Your task to perform on an android device: Add bose soundsport free to the cart on newegg, then select checkout. Image 0: 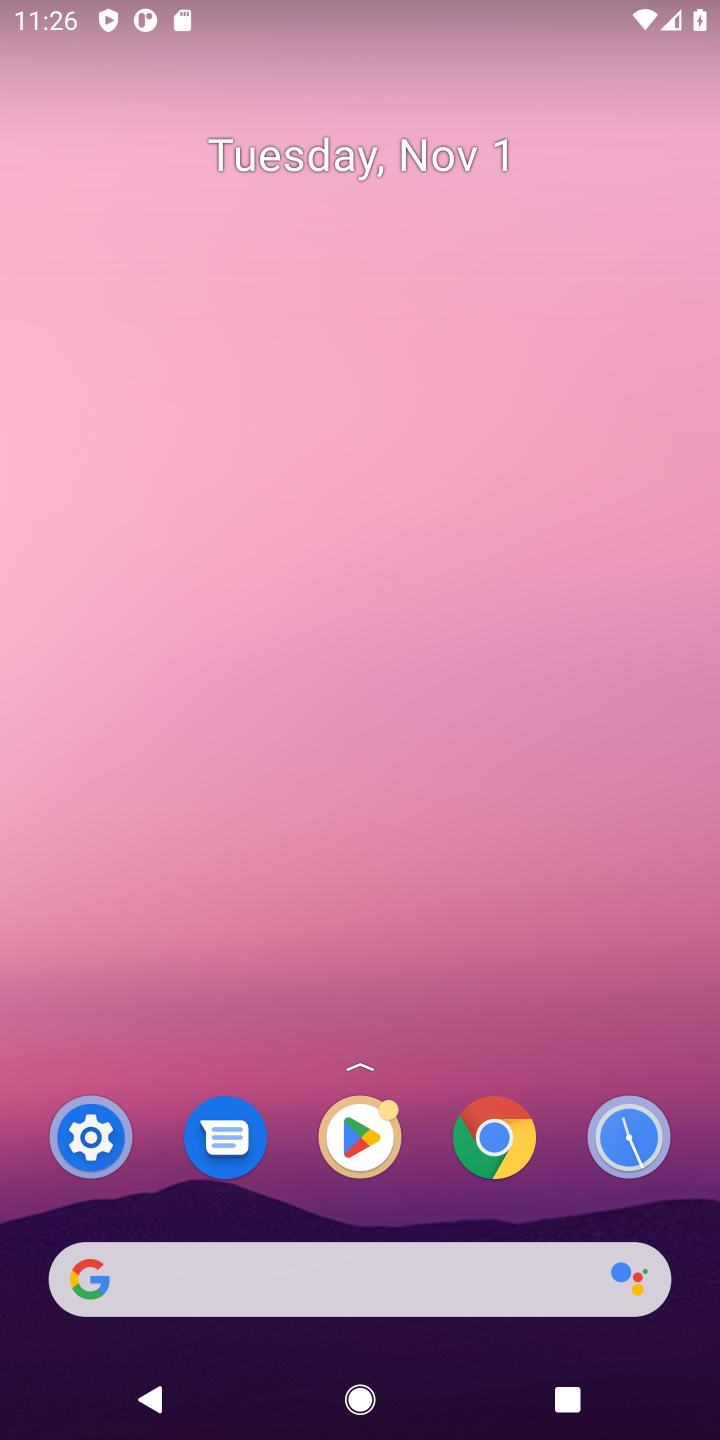
Step 0: click (244, 1246)
Your task to perform on an android device: Add bose soundsport free to the cart on newegg, then select checkout. Image 1: 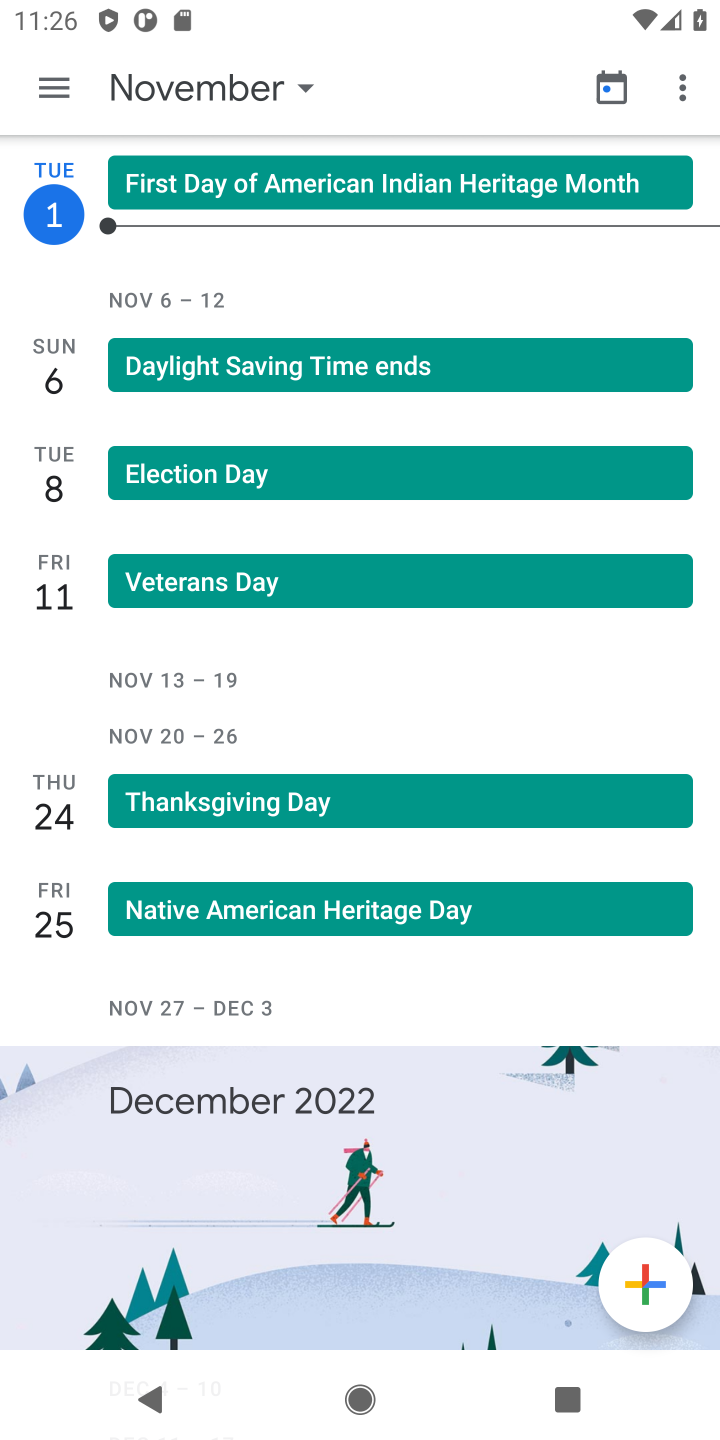
Step 1: type "newegg"
Your task to perform on an android device: Add bose soundsport free to the cart on newegg, then select checkout. Image 2: 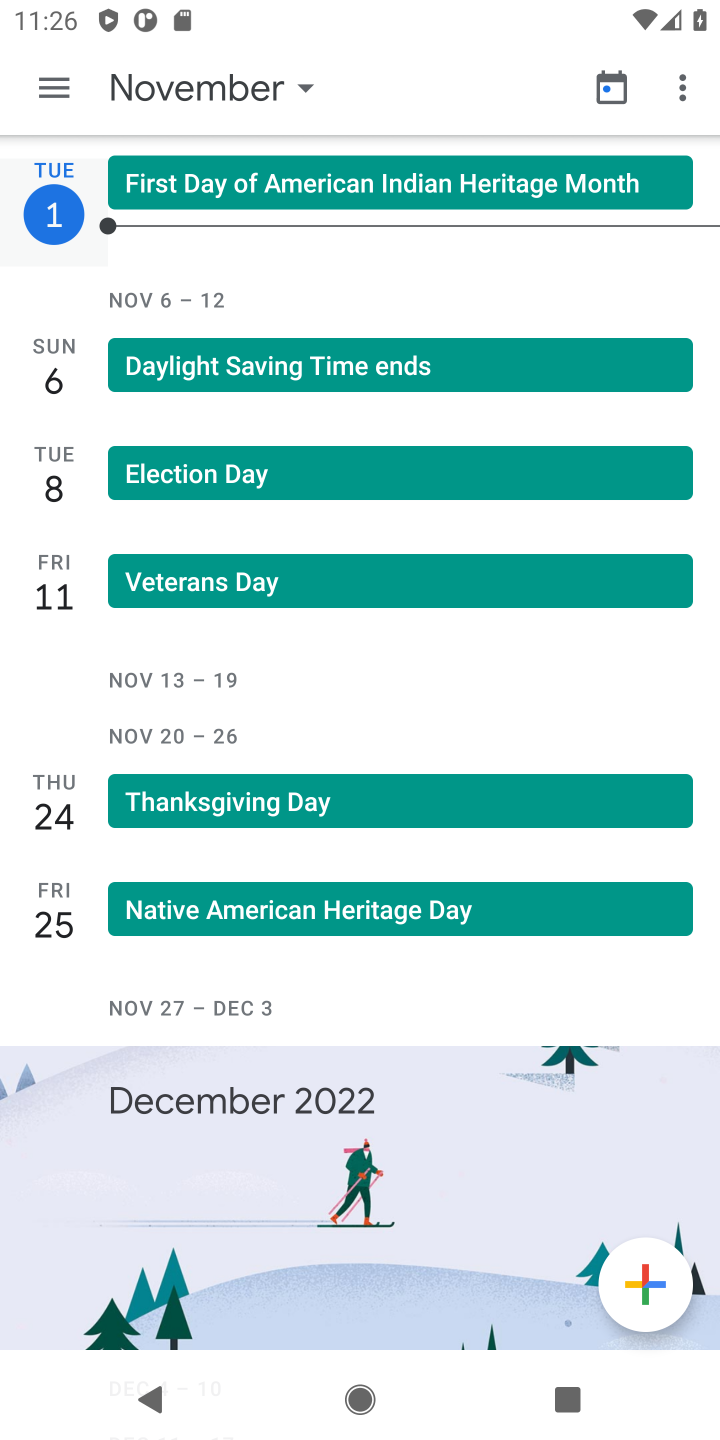
Step 2: type ""
Your task to perform on an android device: Add bose soundsport free to the cart on newegg, then select checkout. Image 3: 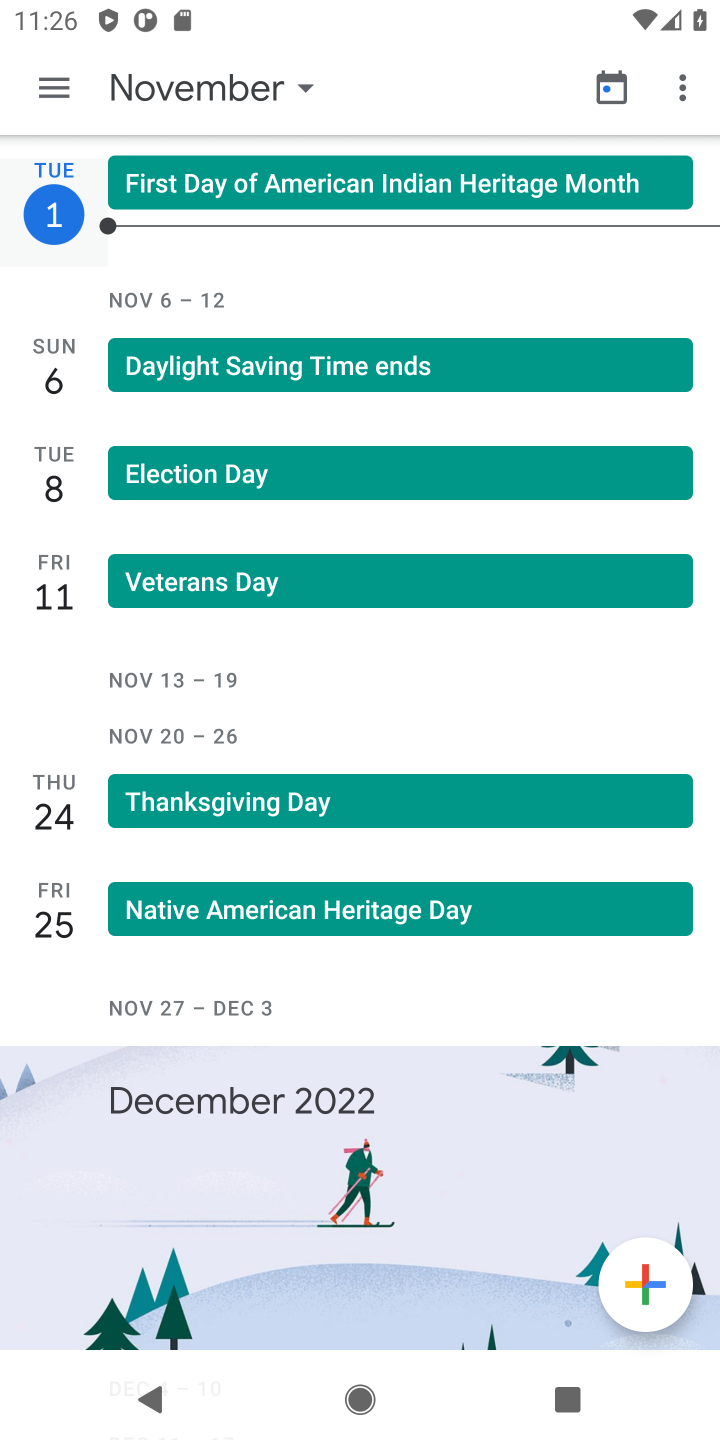
Step 3: press enter
Your task to perform on an android device: Add bose soundsport free to the cart on newegg, then select checkout. Image 4: 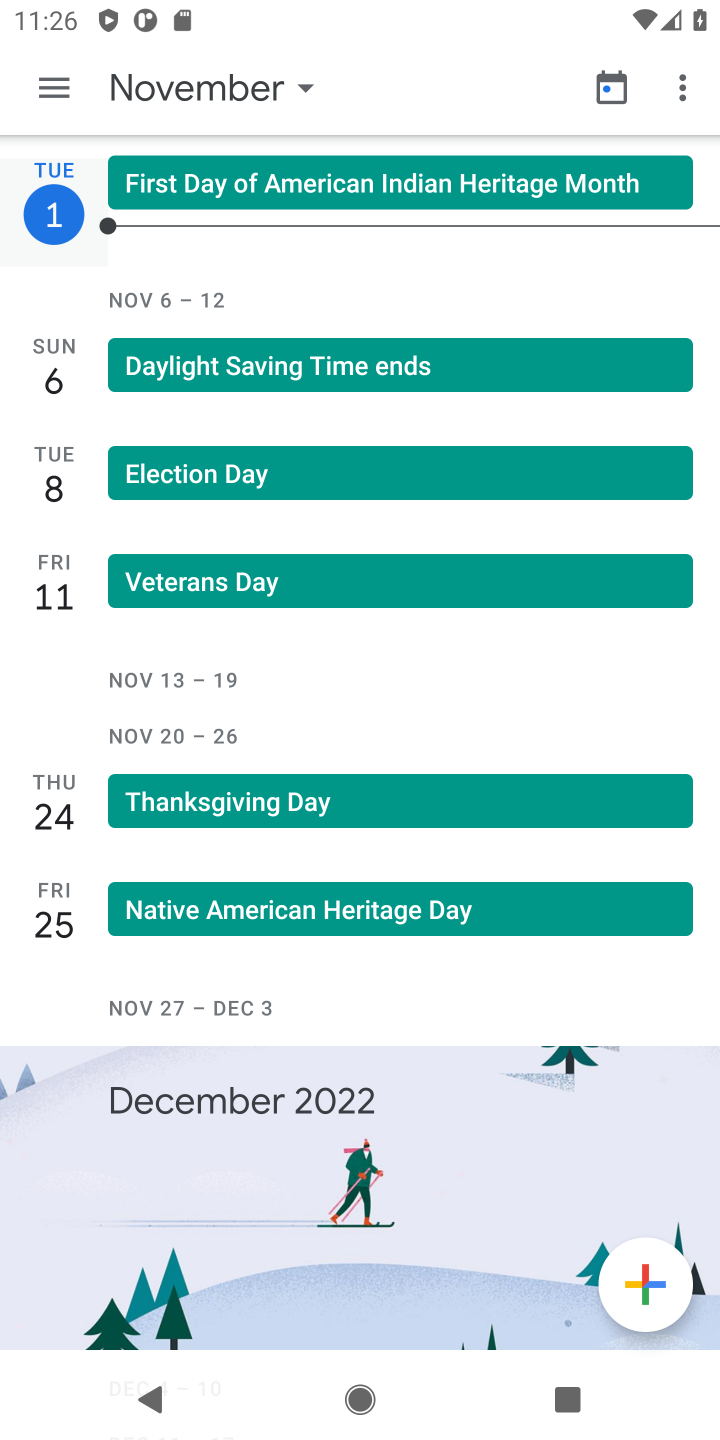
Step 4: press home button
Your task to perform on an android device: Add bose soundsport free to the cart on newegg, then select checkout. Image 5: 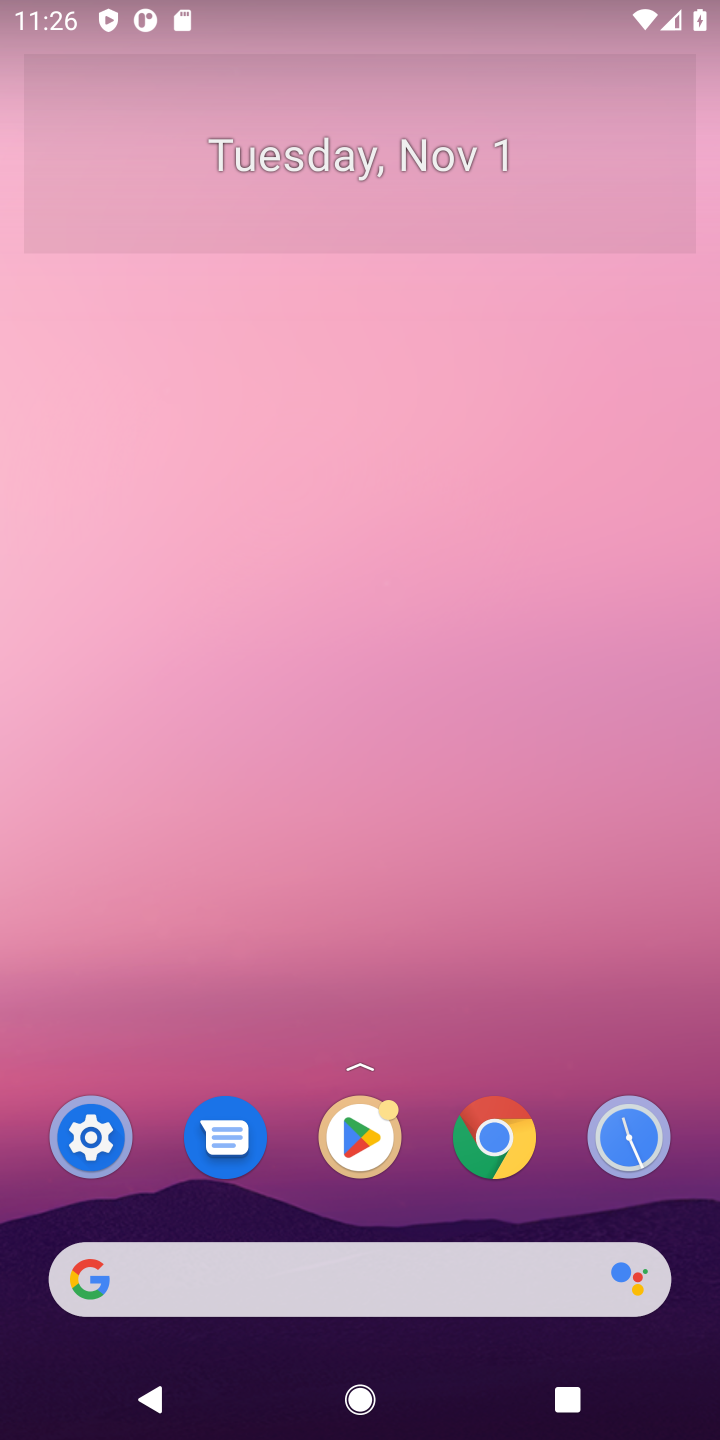
Step 5: click (304, 1257)
Your task to perform on an android device: Add bose soundsport free to the cart on newegg, then select checkout. Image 6: 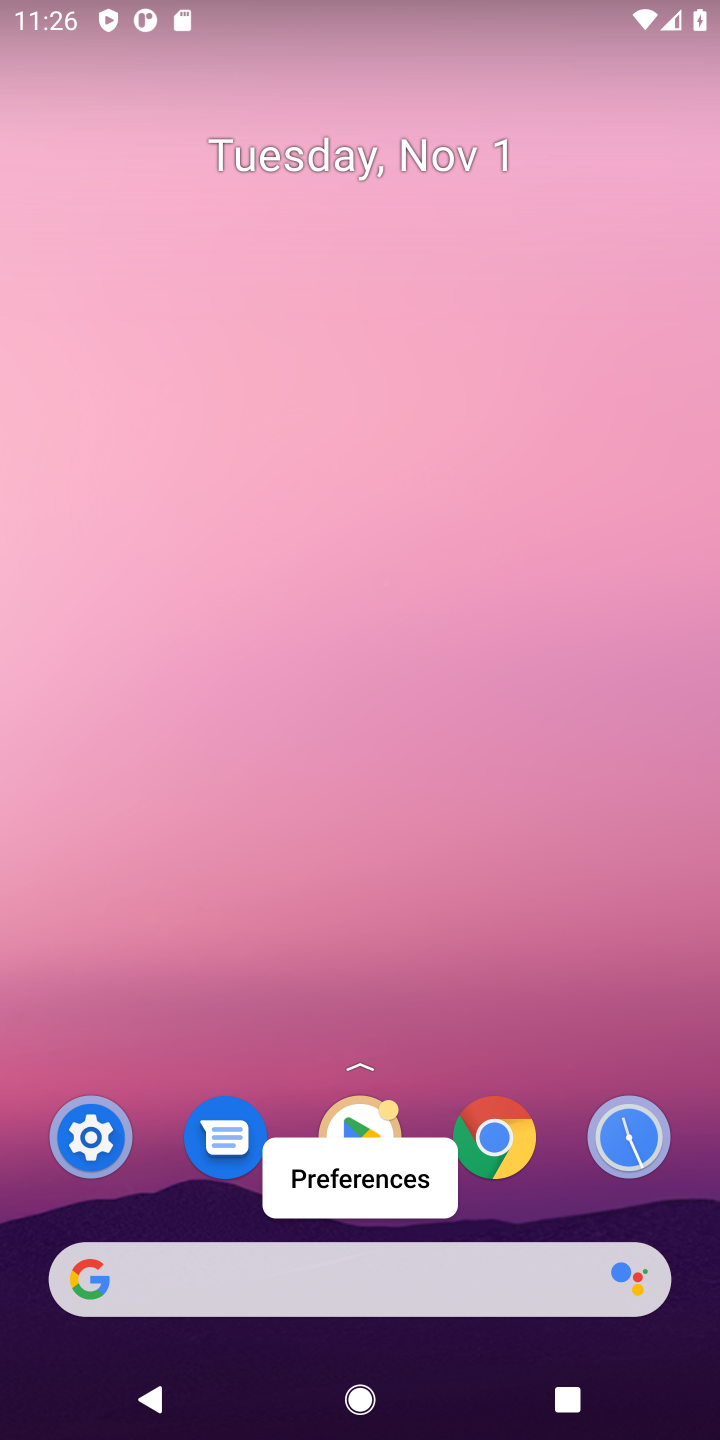
Step 6: click (315, 1272)
Your task to perform on an android device: Add bose soundsport free to the cart on newegg, then select checkout. Image 7: 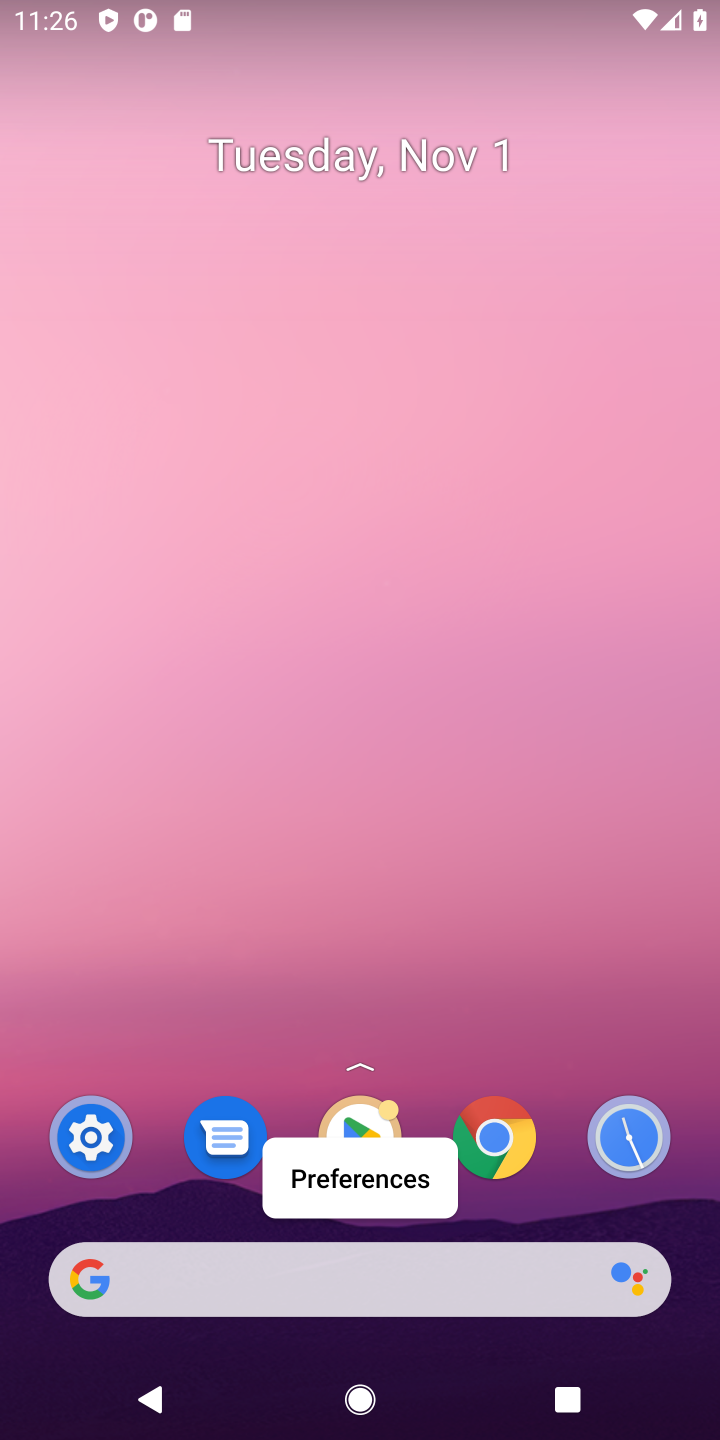
Step 7: click (315, 1272)
Your task to perform on an android device: Add bose soundsport free to the cart on newegg, then select checkout. Image 8: 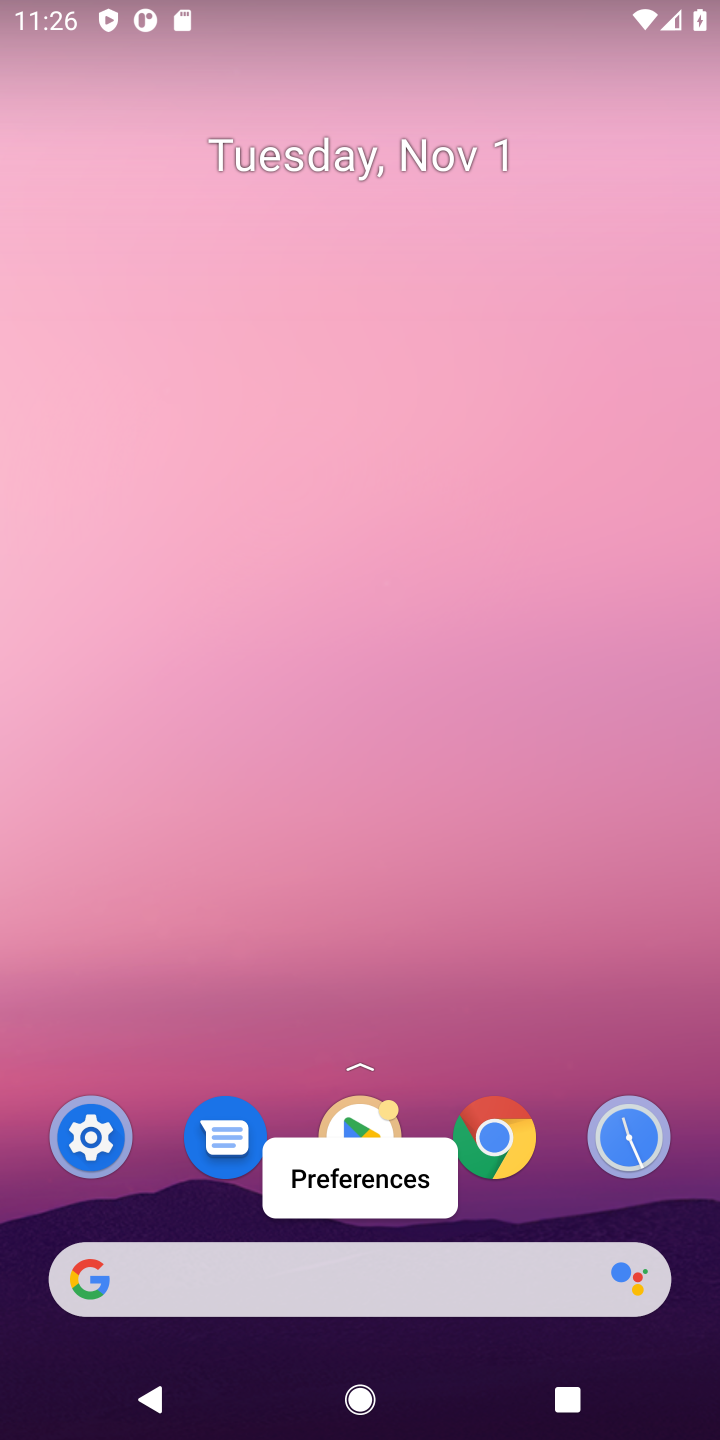
Step 8: click (315, 1272)
Your task to perform on an android device: Add bose soundsport free to the cart on newegg, then select checkout. Image 9: 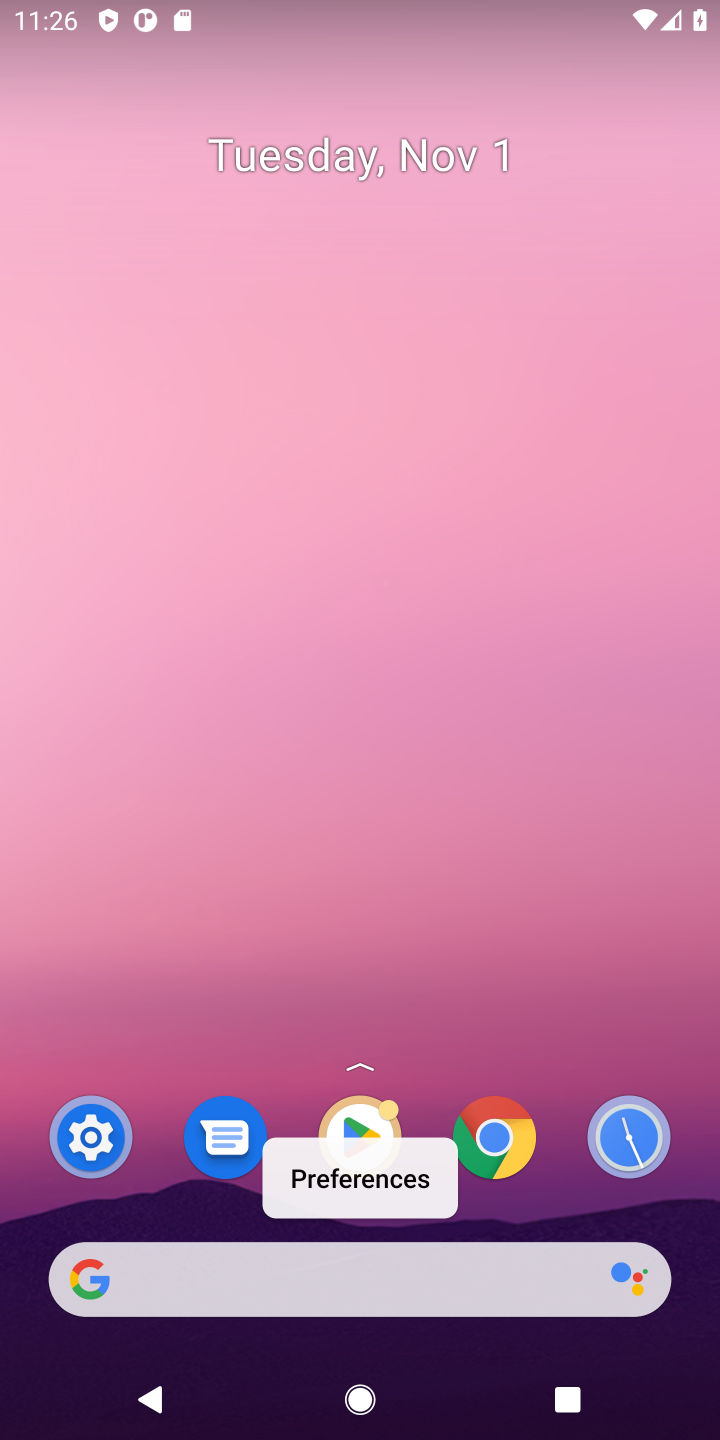
Step 9: click (315, 1272)
Your task to perform on an android device: Add bose soundsport free to the cart on newegg, then select checkout. Image 10: 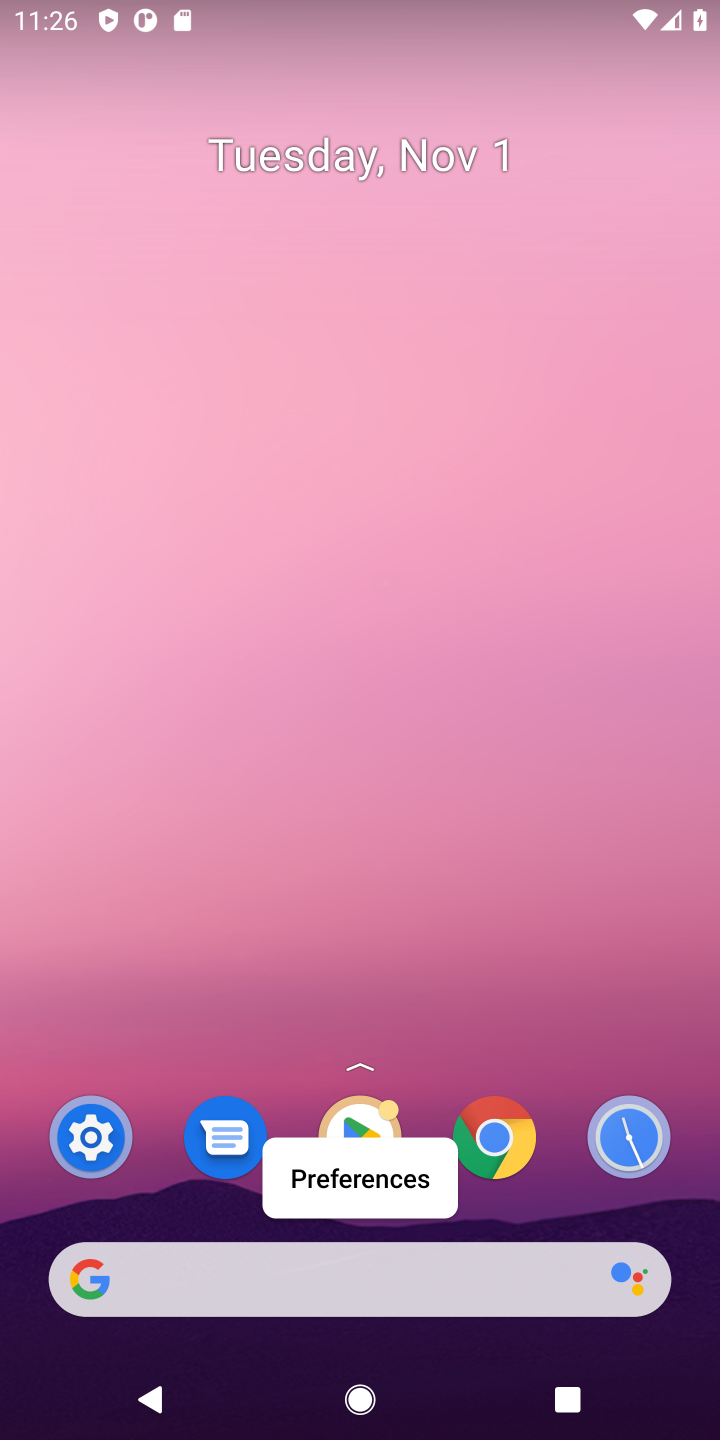
Step 10: click (276, 1272)
Your task to perform on an android device: Add bose soundsport free to the cart on newegg, then select checkout. Image 11: 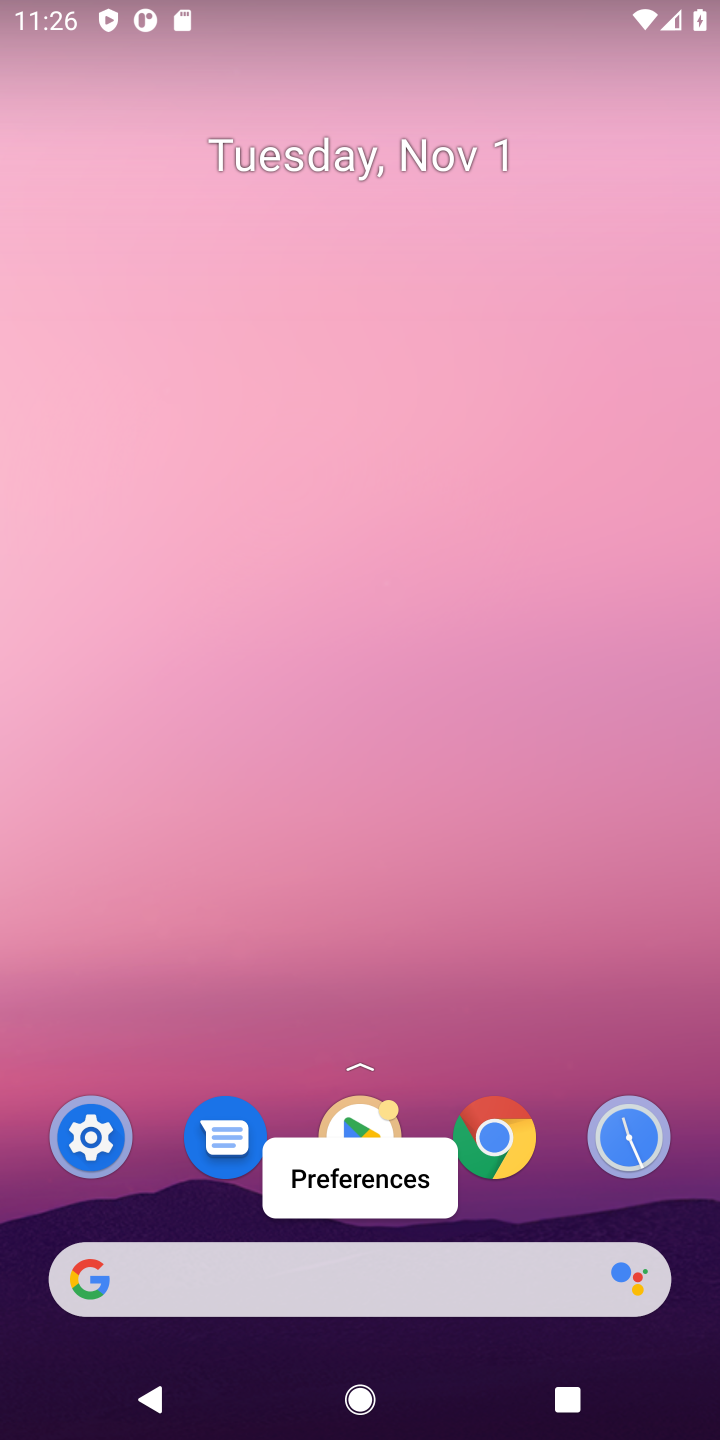
Step 11: click (276, 1272)
Your task to perform on an android device: Add bose soundsport free to the cart on newegg, then select checkout. Image 12: 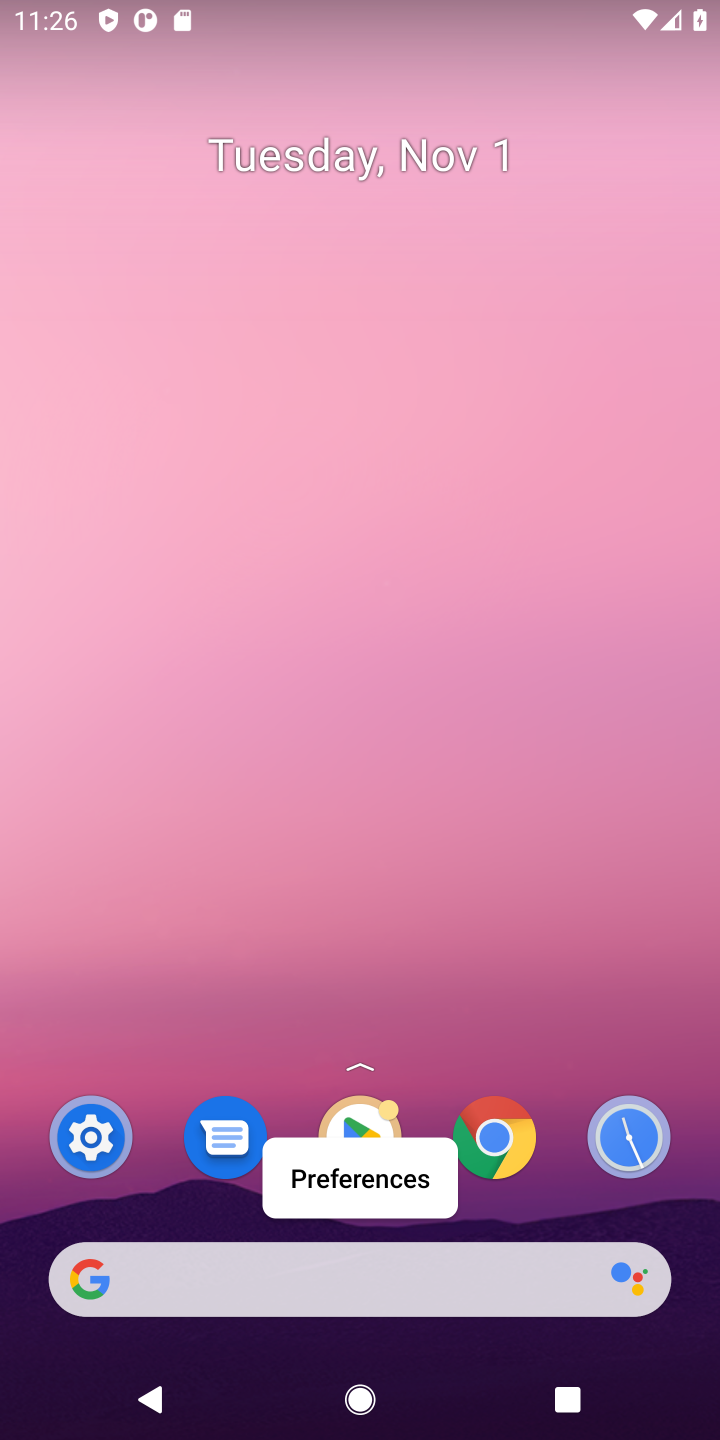
Step 12: click (276, 1272)
Your task to perform on an android device: Add bose soundsport free to the cart on newegg, then select checkout. Image 13: 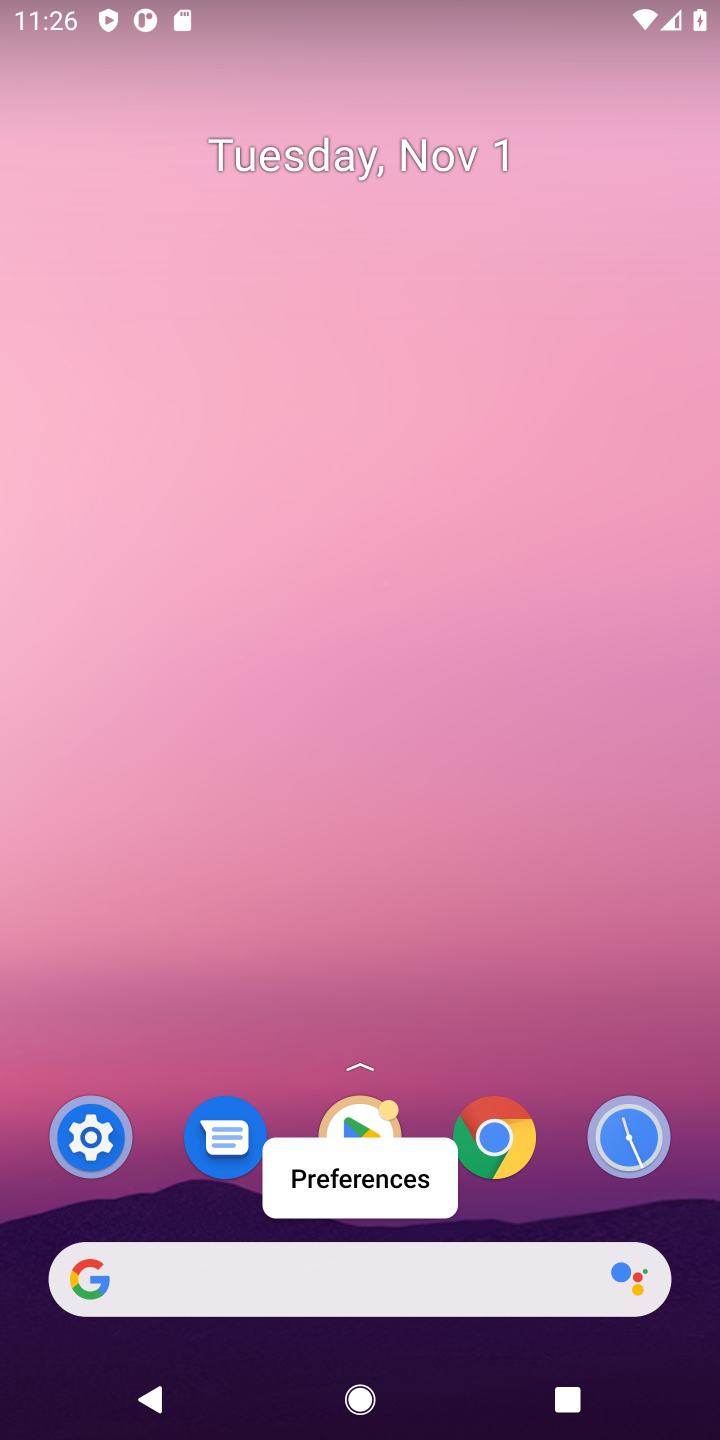
Step 13: click (276, 1272)
Your task to perform on an android device: Add bose soundsport free to the cart on newegg, then select checkout. Image 14: 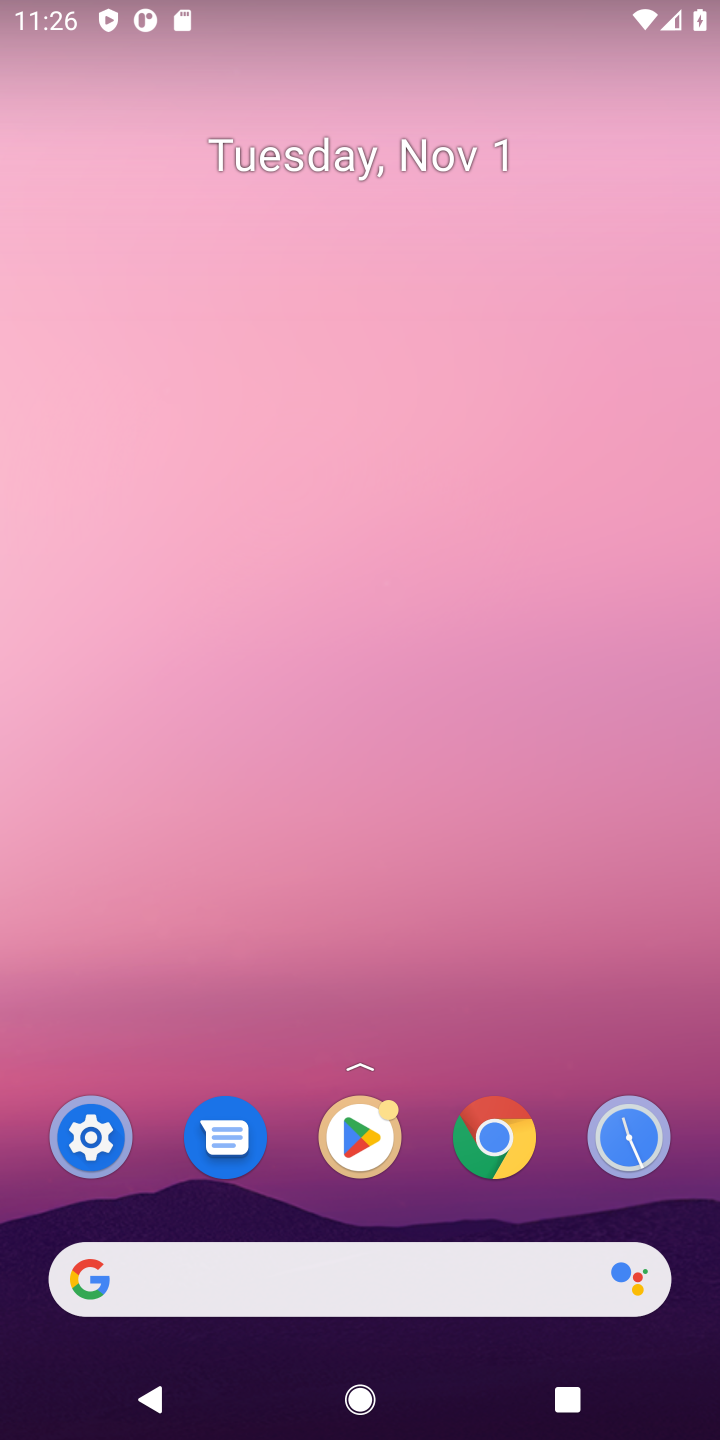
Step 14: click (432, 1275)
Your task to perform on an android device: Add bose soundsport free to the cart on newegg, then select checkout. Image 15: 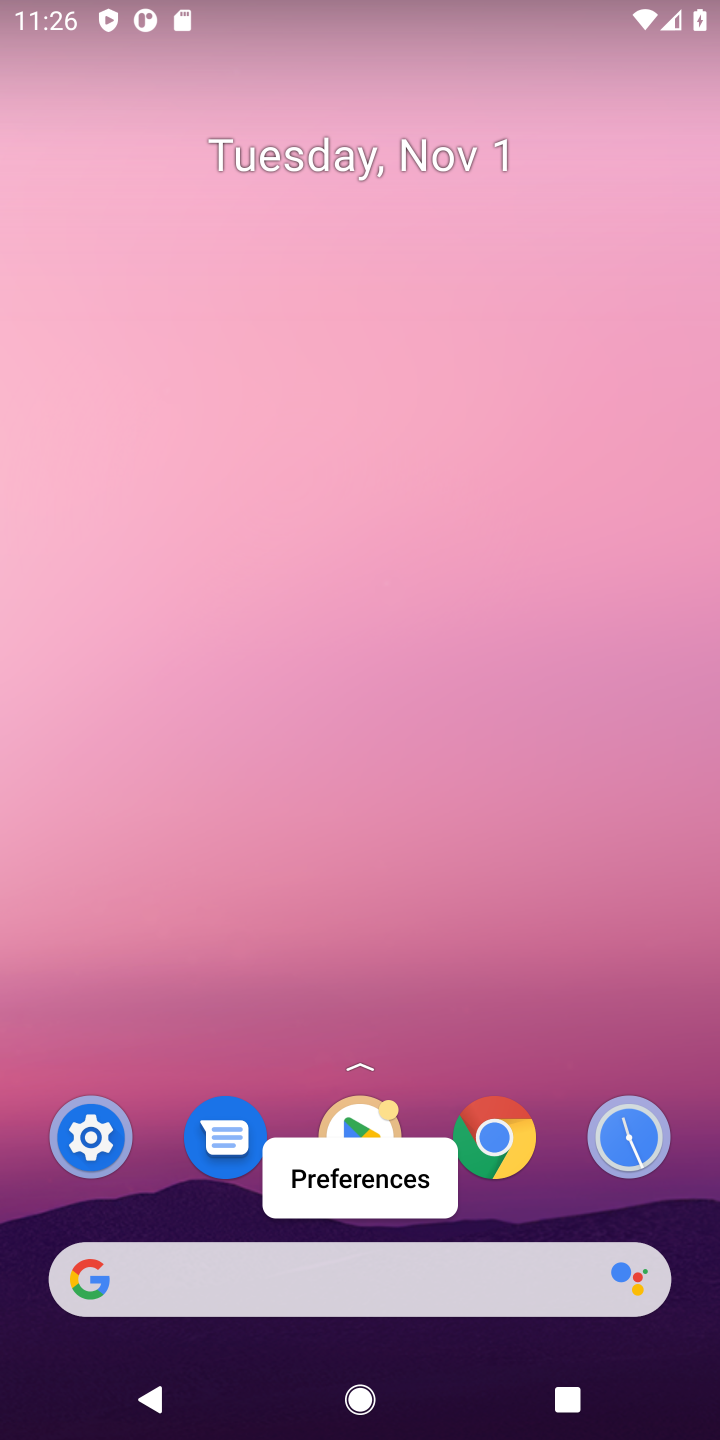
Step 15: click (171, 1293)
Your task to perform on an android device: Add bose soundsport free to the cart on newegg, then select checkout. Image 16: 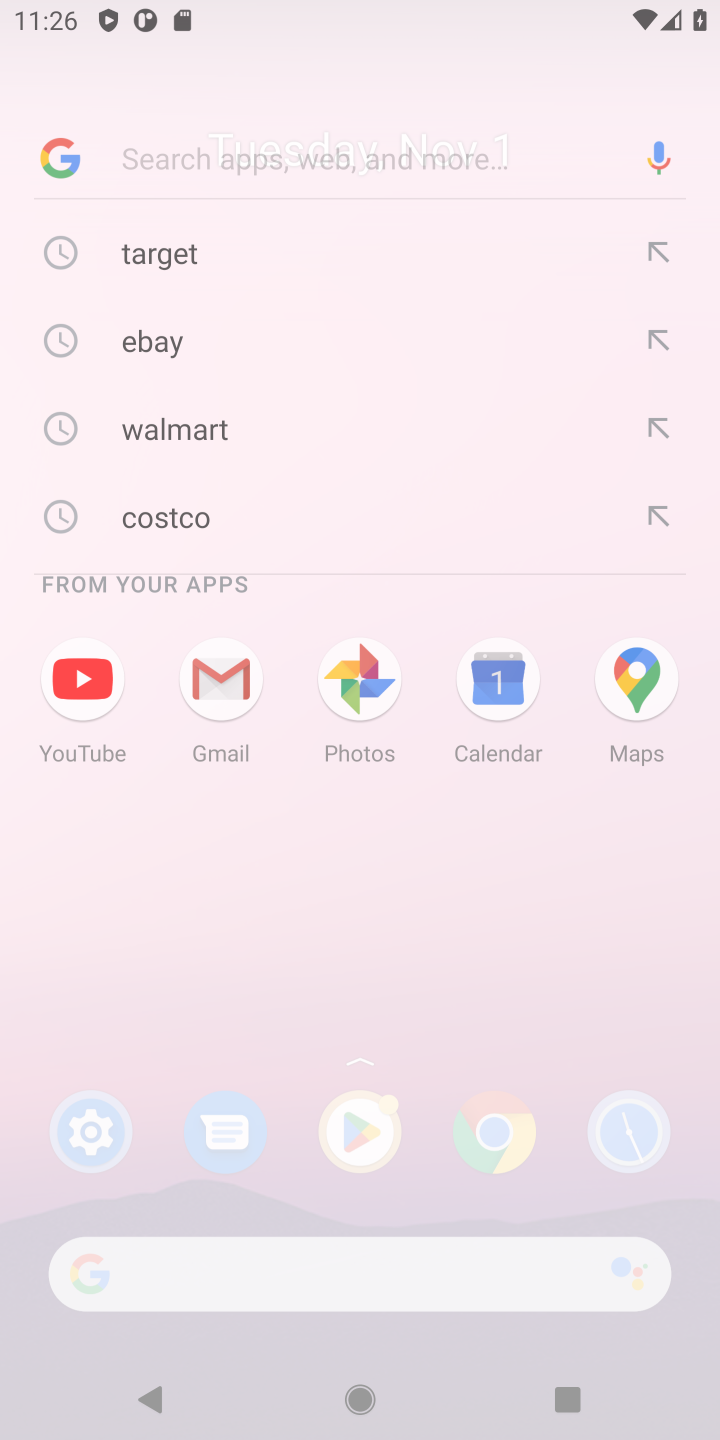
Step 16: click (496, 1122)
Your task to perform on an android device: Add bose soundsport free to the cart on newegg, then select checkout. Image 17: 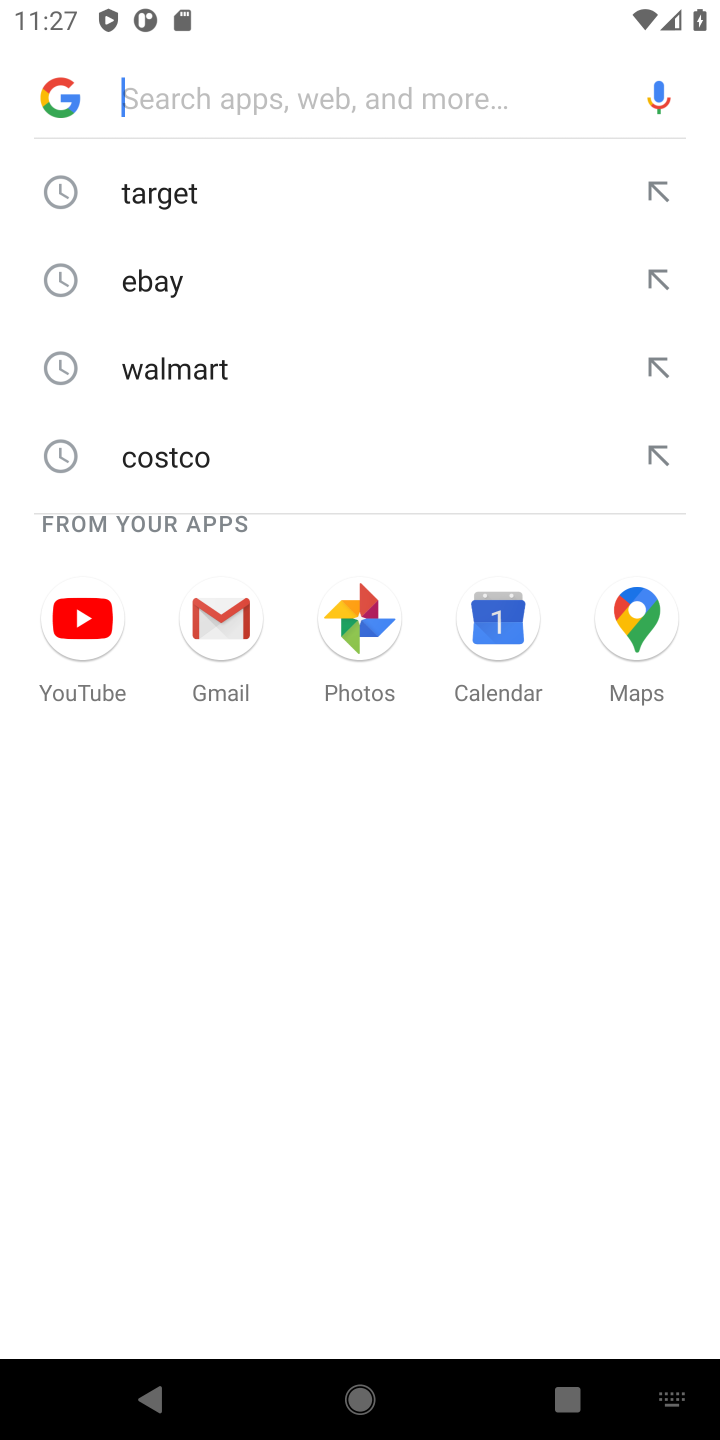
Step 17: type "newegg"
Your task to perform on an android device: Add bose soundsport free to the cart on newegg, then select checkout. Image 18: 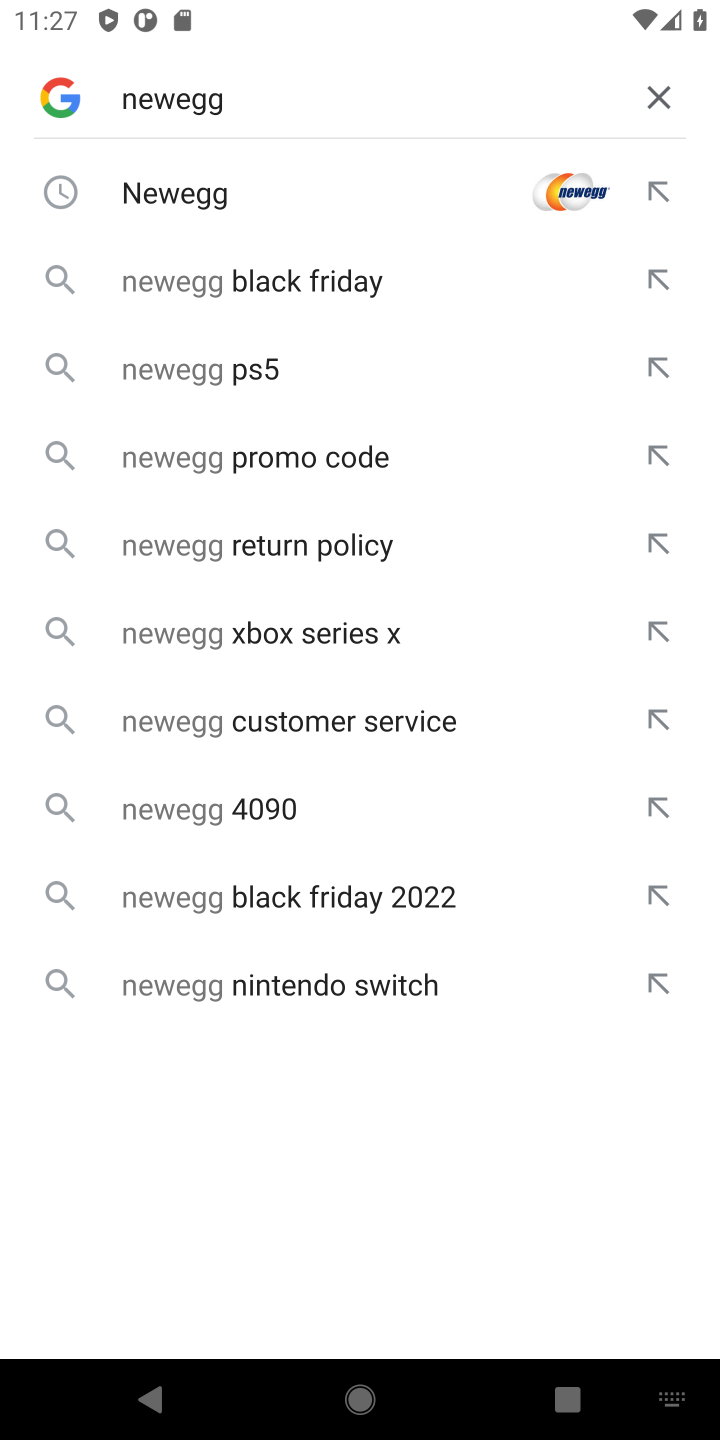
Step 18: press enter
Your task to perform on an android device: Add bose soundsport free to the cart on newegg, then select checkout. Image 19: 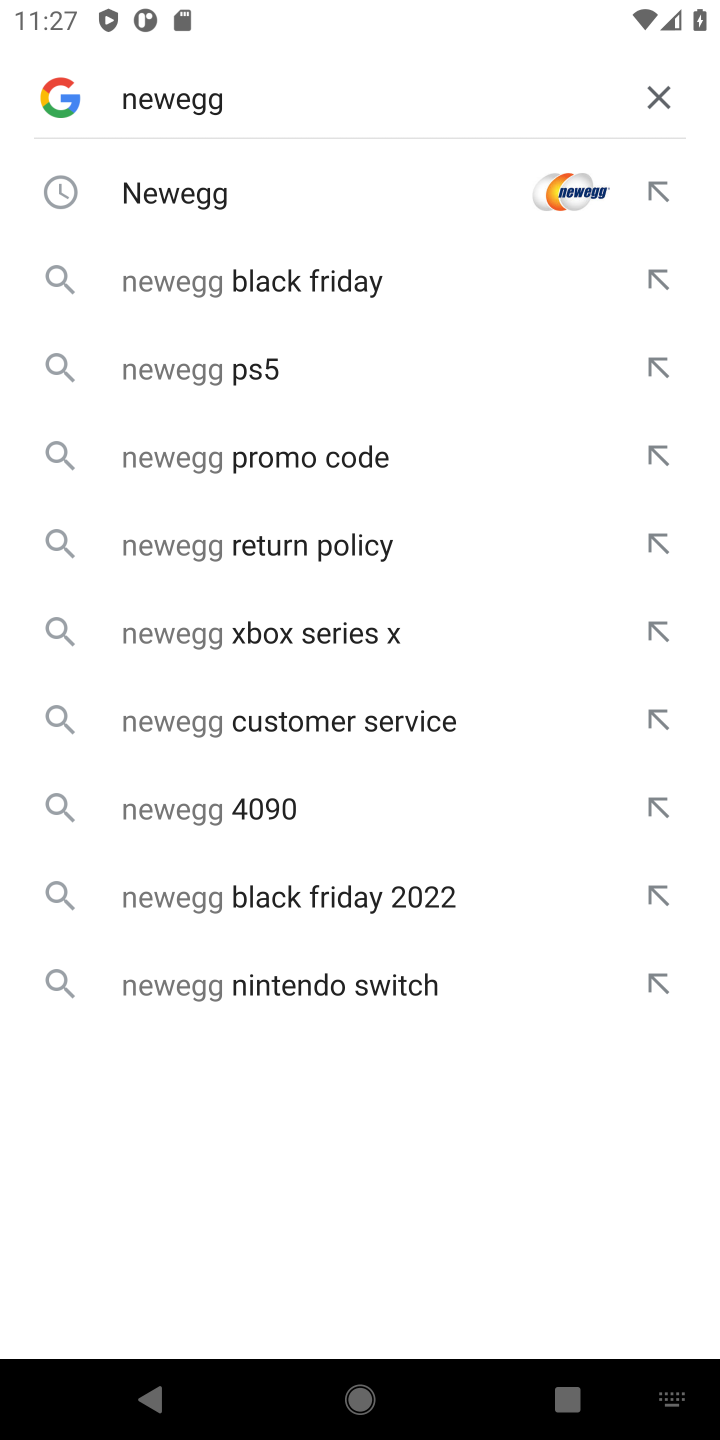
Step 19: type ""
Your task to perform on an android device: Add bose soundsport free to the cart on newegg, then select checkout. Image 20: 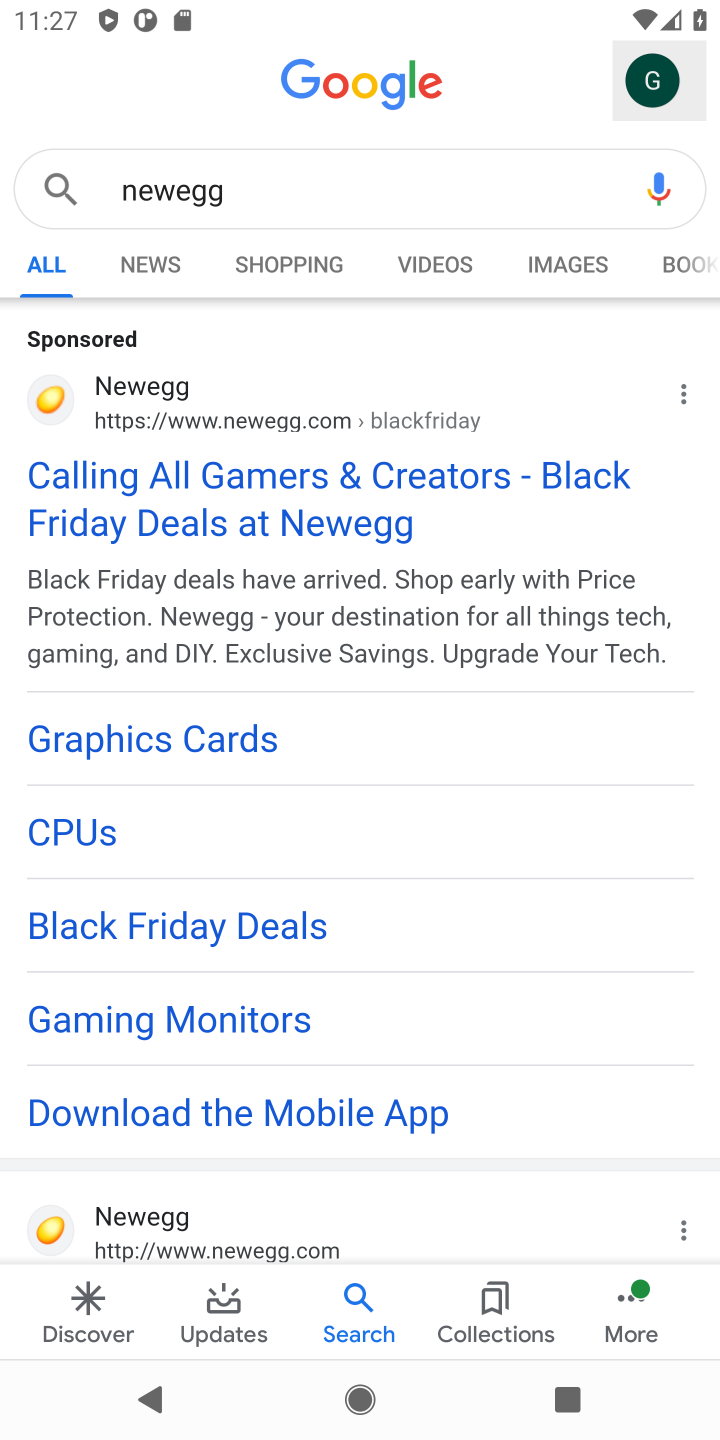
Step 20: click (153, 485)
Your task to perform on an android device: Add bose soundsport free to the cart on newegg, then select checkout. Image 21: 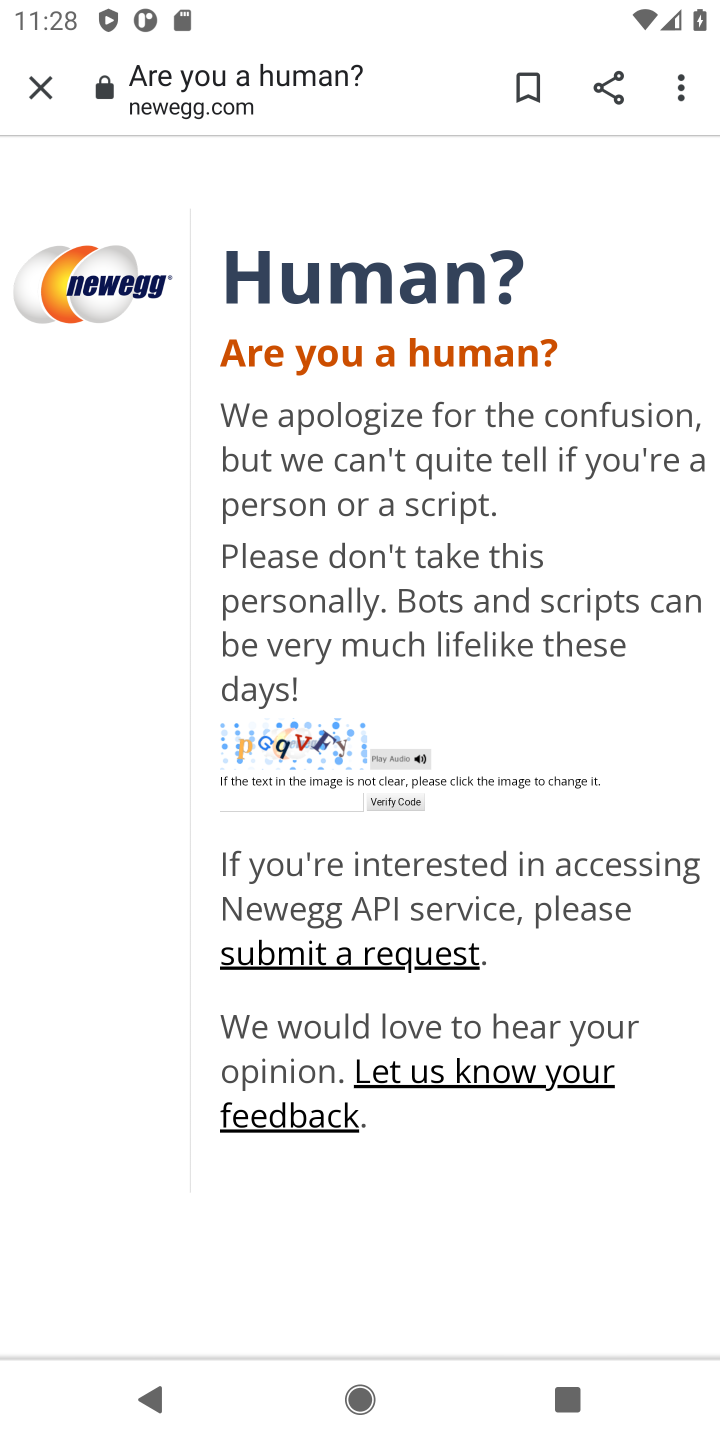
Step 21: click (293, 804)
Your task to perform on an android device: Add bose soundsport free to the cart on newegg, then select checkout. Image 22: 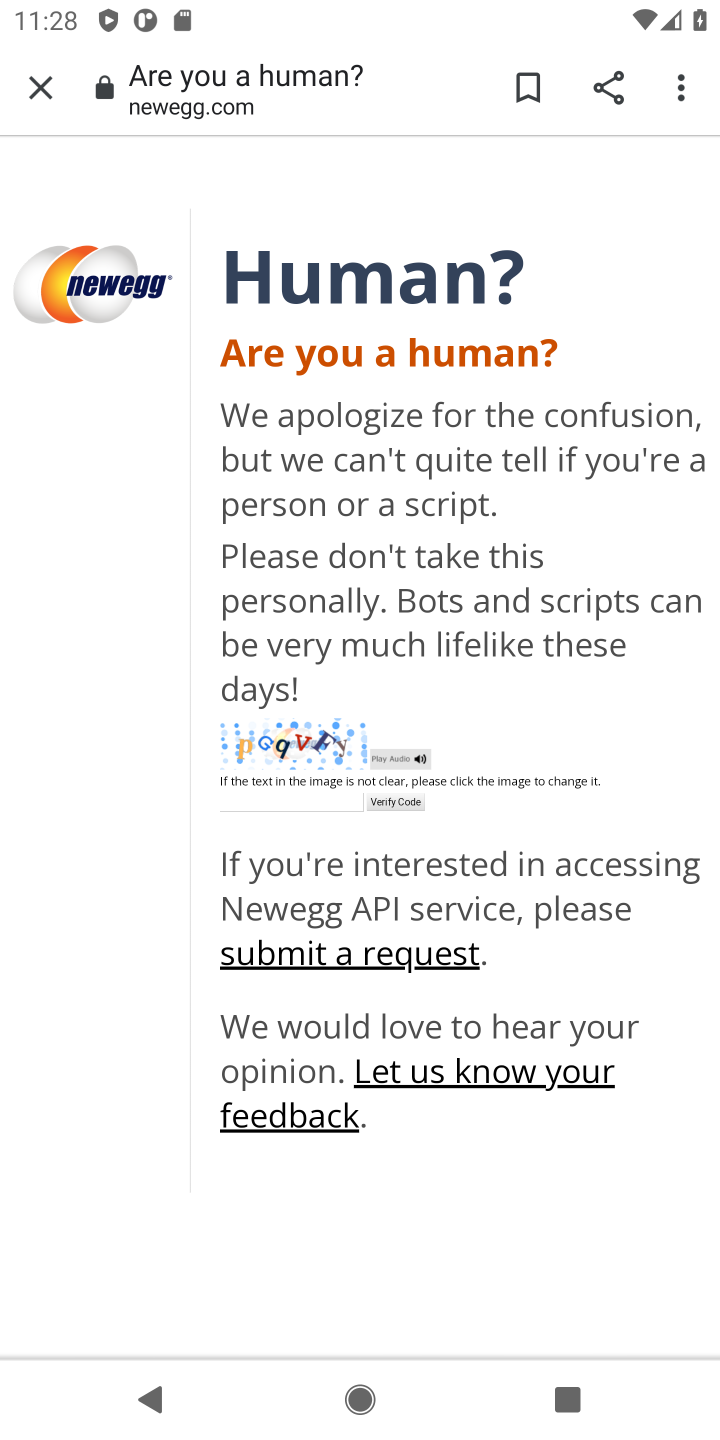
Step 22: click (296, 800)
Your task to perform on an android device: Add bose soundsport free to the cart on newegg, then select checkout. Image 23: 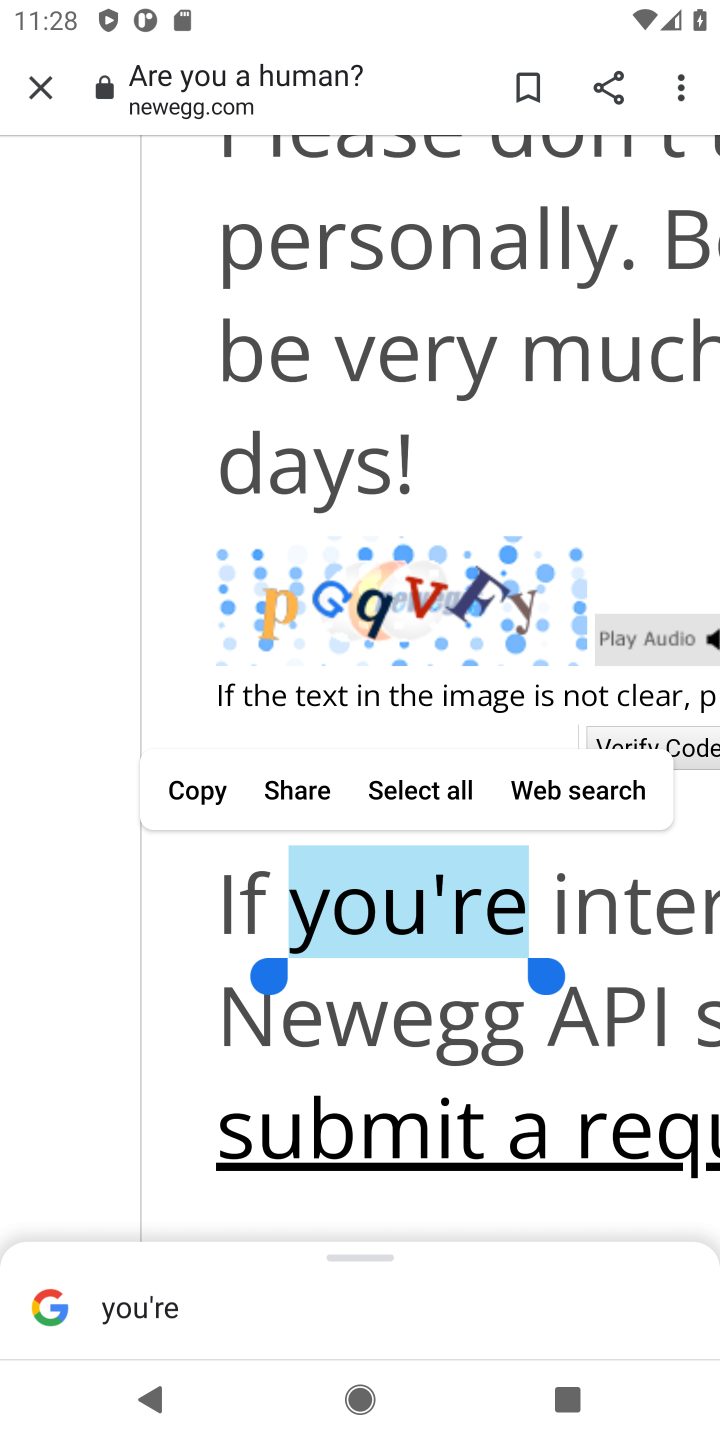
Step 23: click (85, 957)
Your task to perform on an android device: Add bose soundsport free to the cart on newegg, then select checkout. Image 24: 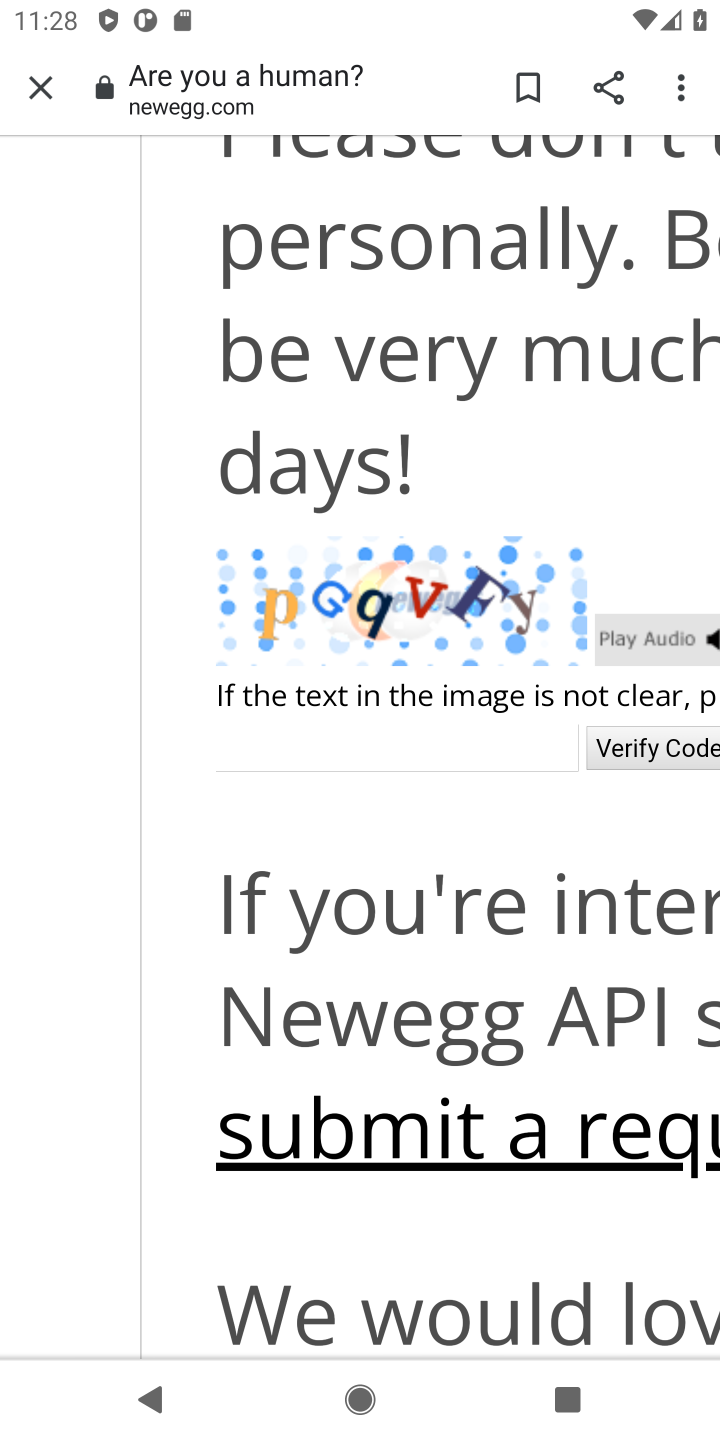
Step 24: click (331, 759)
Your task to perform on an android device: Add bose soundsport free to the cart on newegg, then select checkout. Image 25: 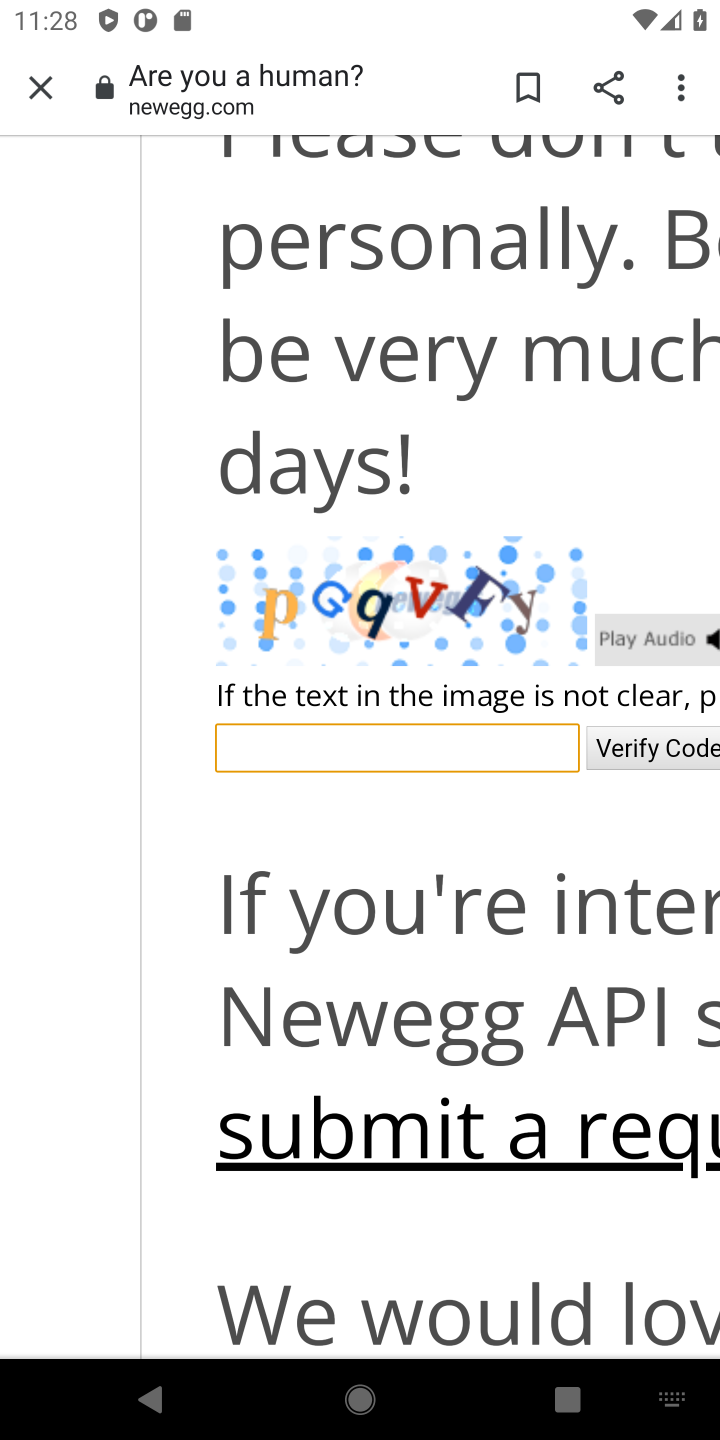
Step 25: type "pGqVFy"
Your task to perform on an android device: Add bose soundsport free to the cart on newegg, then select checkout. Image 26: 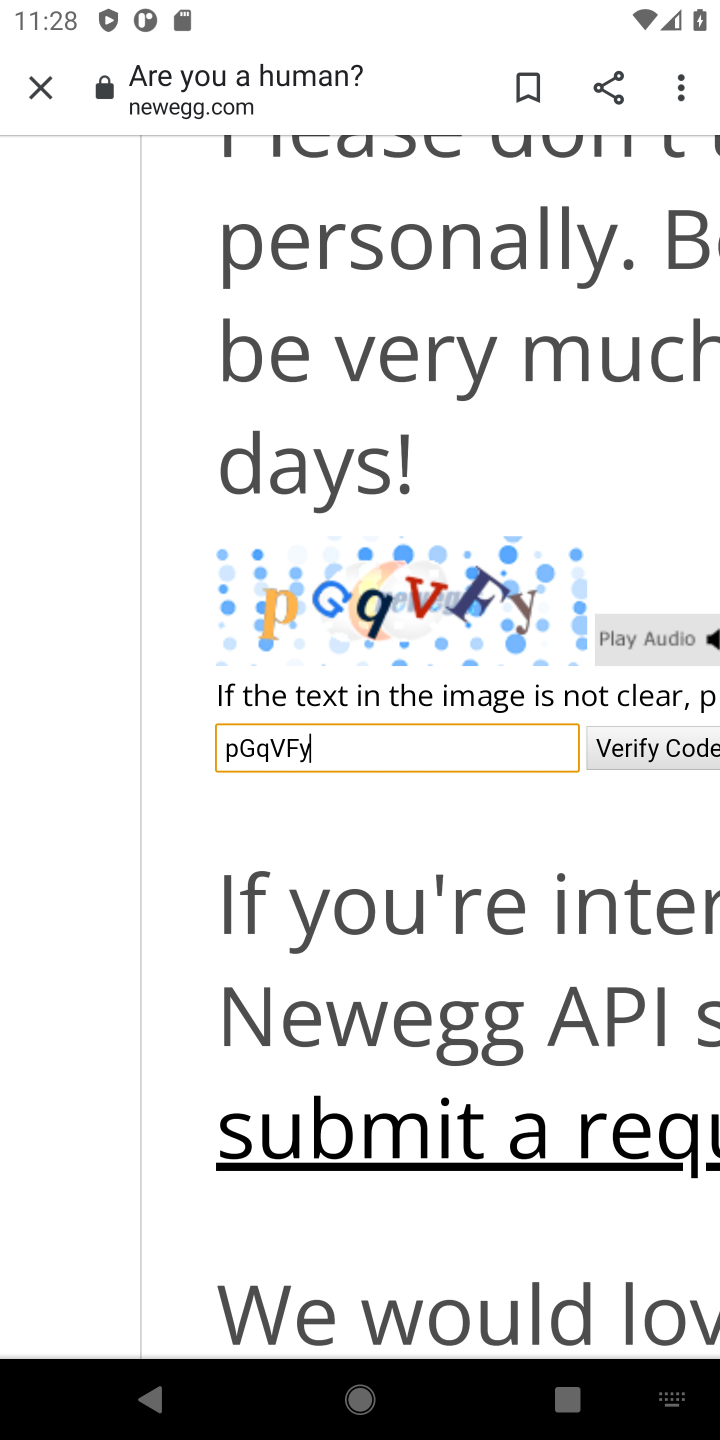
Step 26: type ""
Your task to perform on an android device: Add bose soundsport free to the cart on newegg, then select checkout. Image 27: 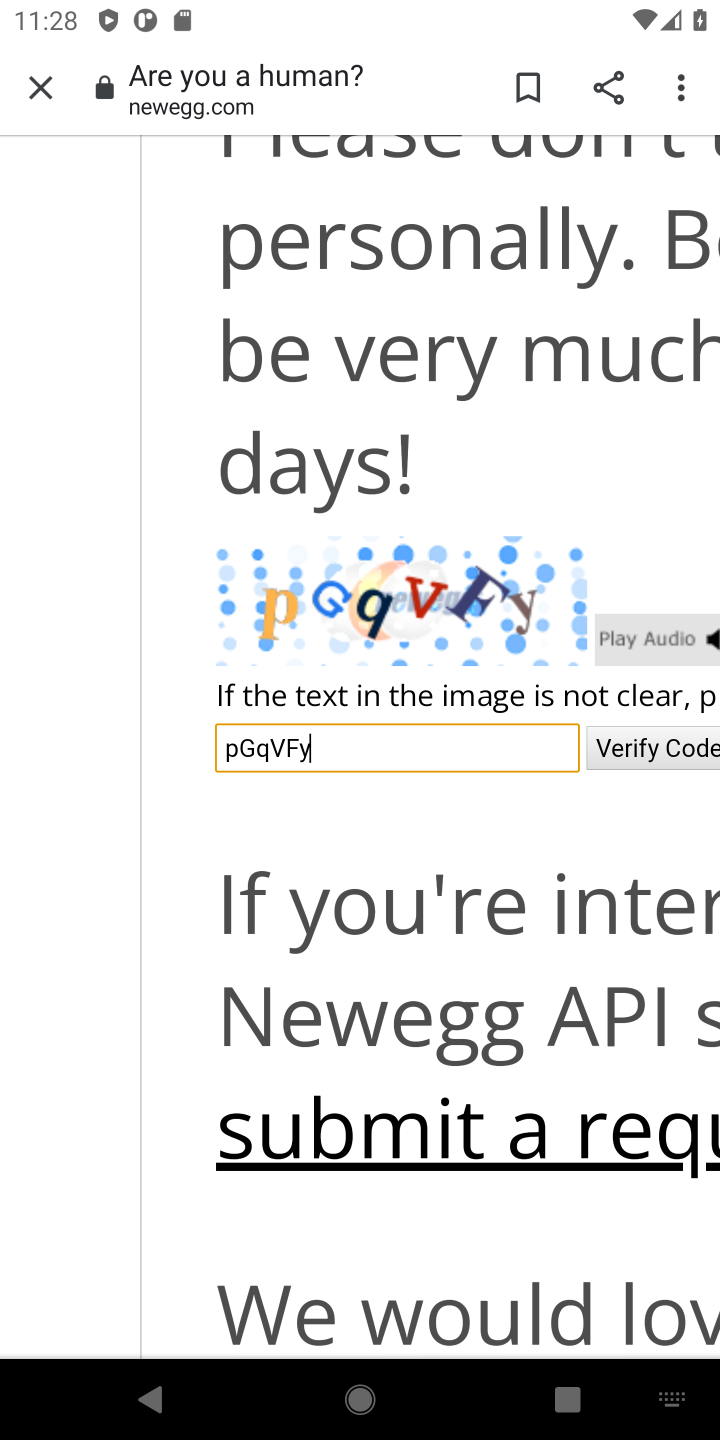
Step 27: click (713, 752)
Your task to perform on an android device: Add bose soundsport free to the cart on newegg, then select checkout. Image 28: 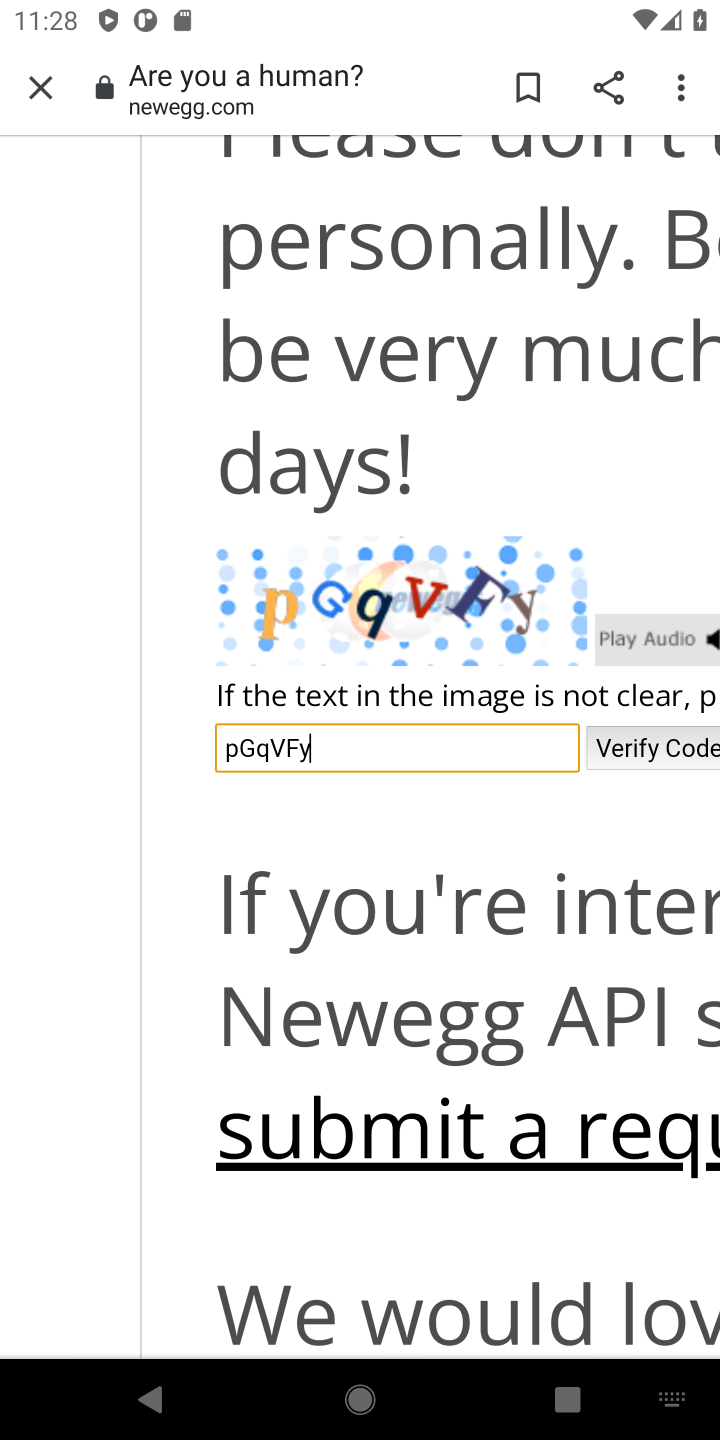
Step 28: click (703, 752)
Your task to perform on an android device: Add bose soundsport free to the cart on newegg, then select checkout. Image 29: 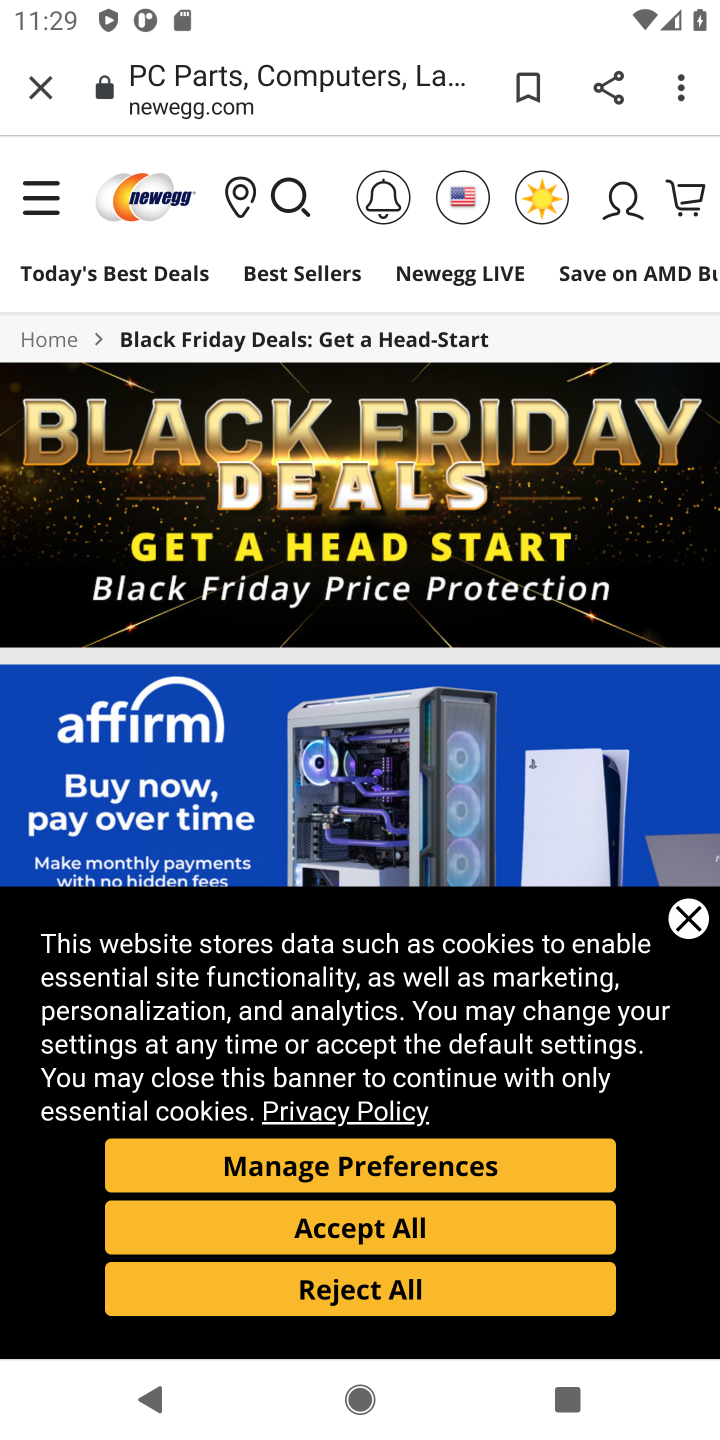
Step 29: click (390, 1221)
Your task to perform on an android device: Add bose soundsport free to the cart on newegg, then select checkout. Image 30: 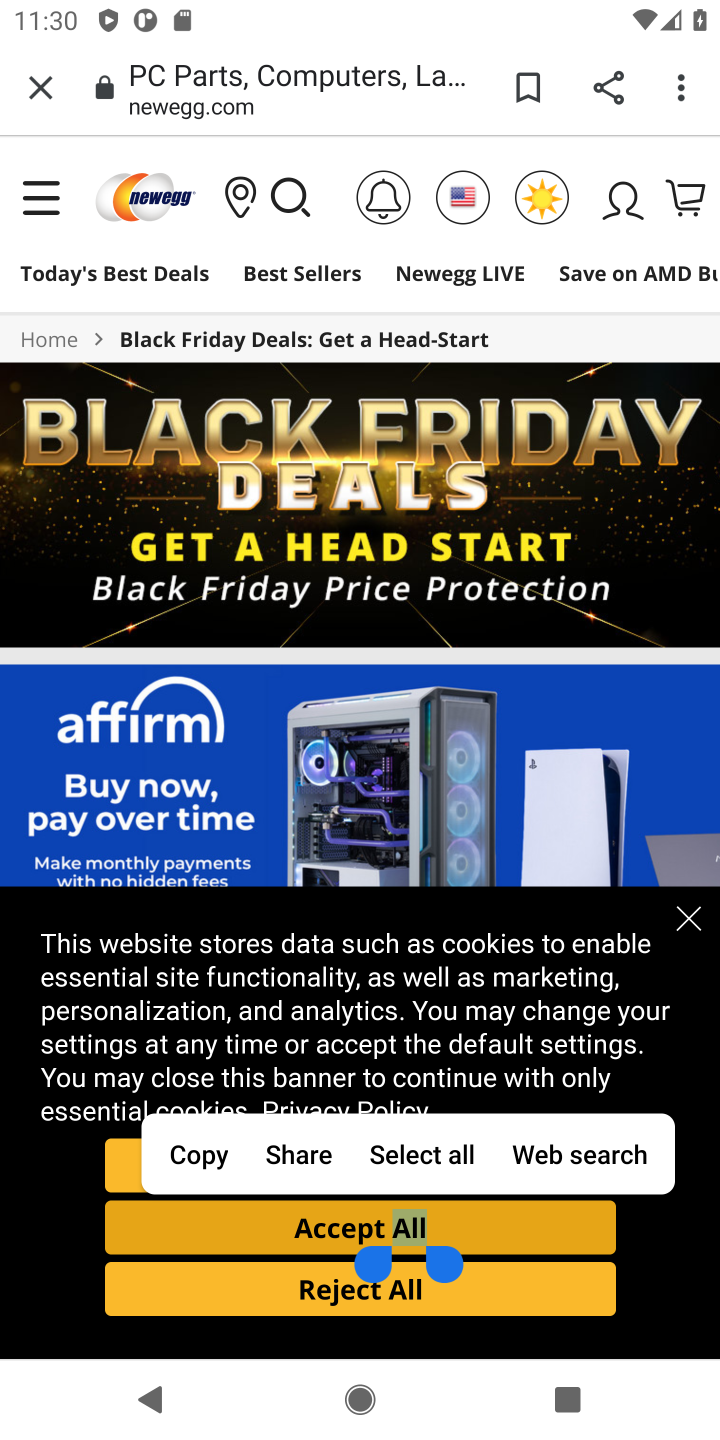
Step 30: click (376, 1226)
Your task to perform on an android device: Add bose soundsport free to the cart on newegg, then select checkout. Image 31: 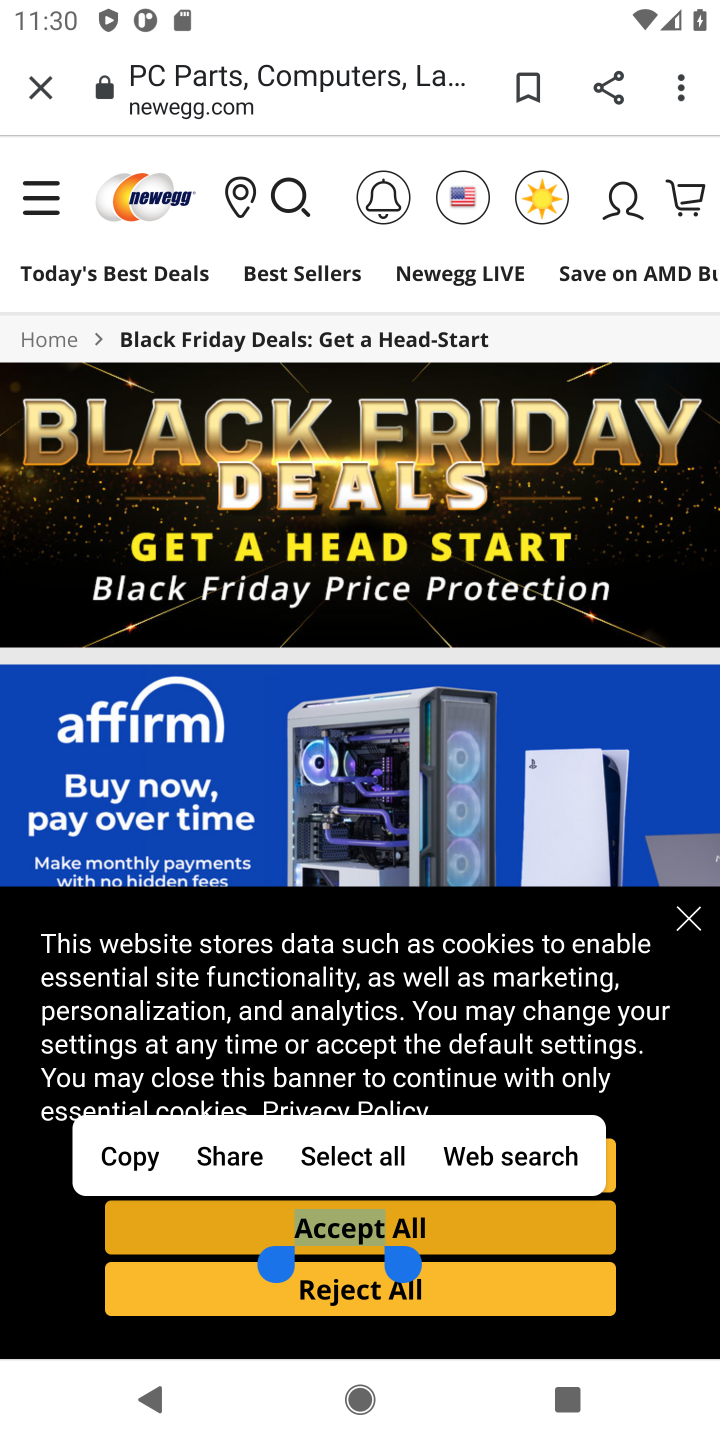
Step 31: task complete